Your task to perform on an android device: change the clock display to show seconds Image 0: 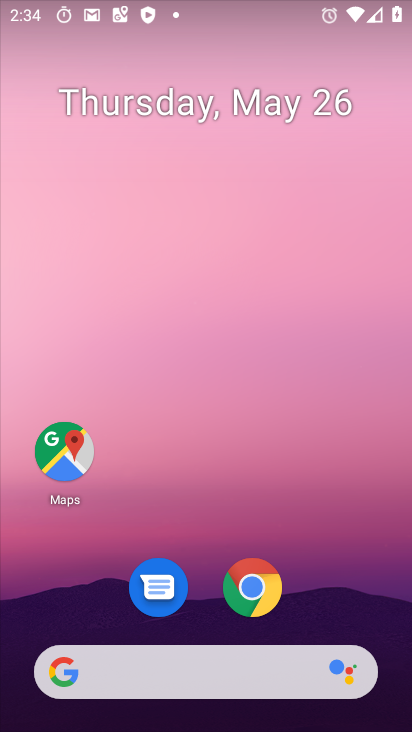
Step 0: drag from (282, 585) to (238, 80)
Your task to perform on an android device: change the clock display to show seconds Image 1: 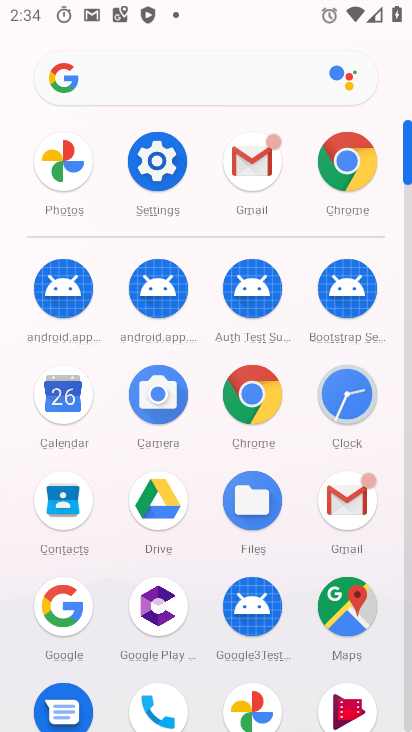
Step 1: click (355, 410)
Your task to perform on an android device: change the clock display to show seconds Image 2: 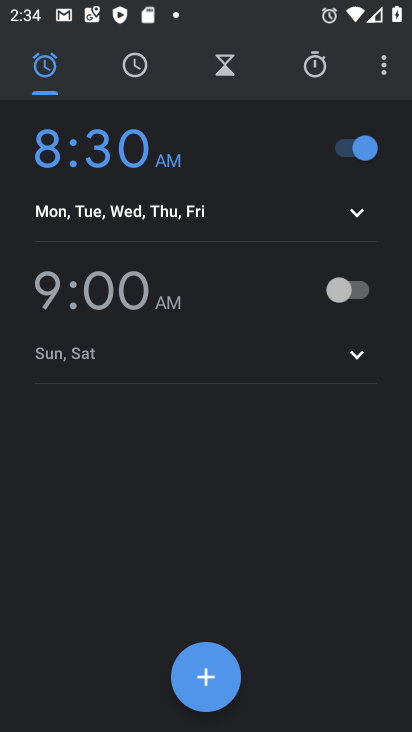
Step 2: click (388, 78)
Your task to perform on an android device: change the clock display to show seconds Image 3: 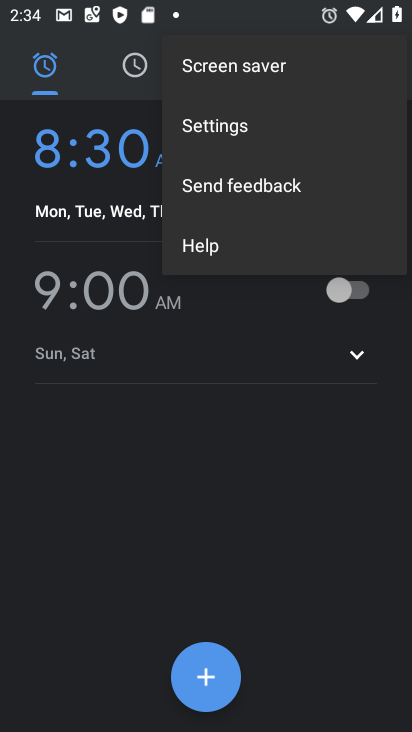
Step 3: click (267, 124)
Your task to perform on an android device: change the clock display to show seconds Image 4: 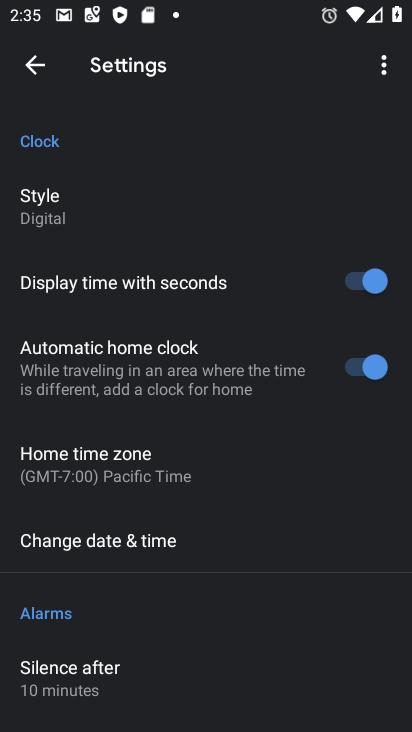
Step 4: click (334, 283)
Your task to perform on an android device: change the clock display to show seconds Image 5: 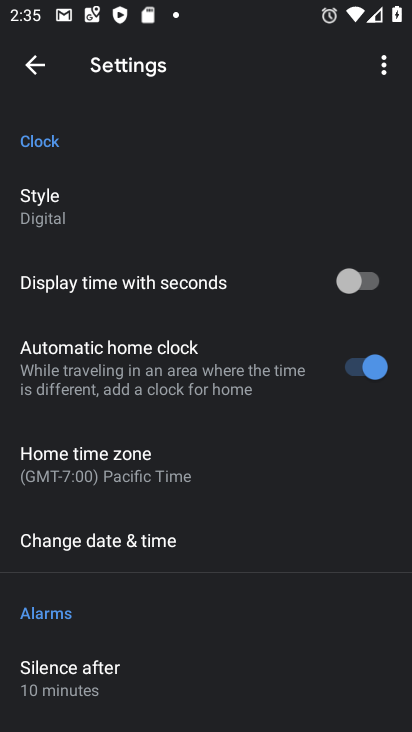
Step 5: task complete